Your task to perform on an android device: find photos in the google photos app Image 0: 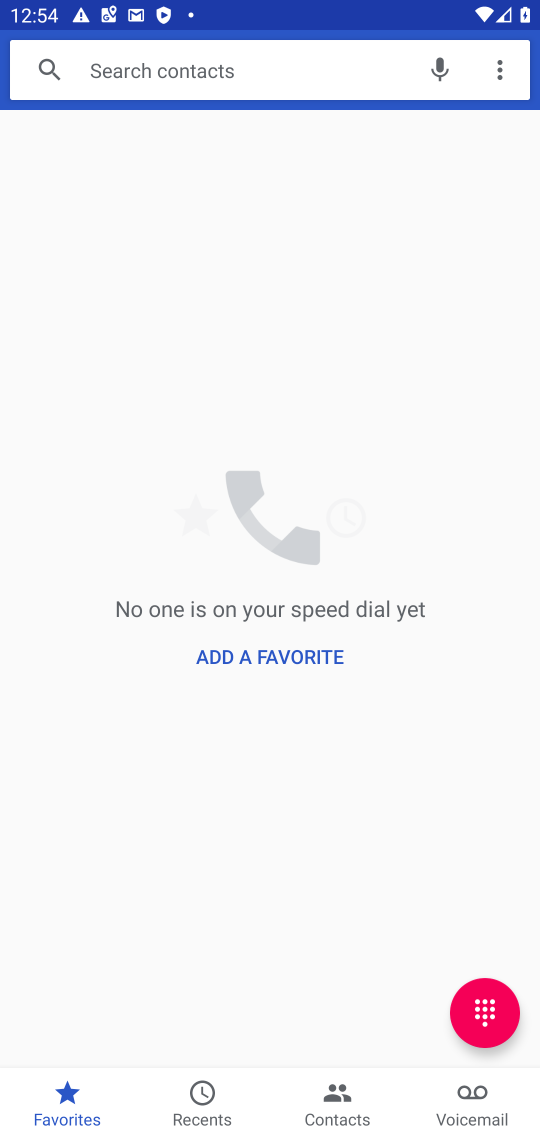
Step 0: press home button
Your task to perform on an android device: find photos in the google photos app Image 1: 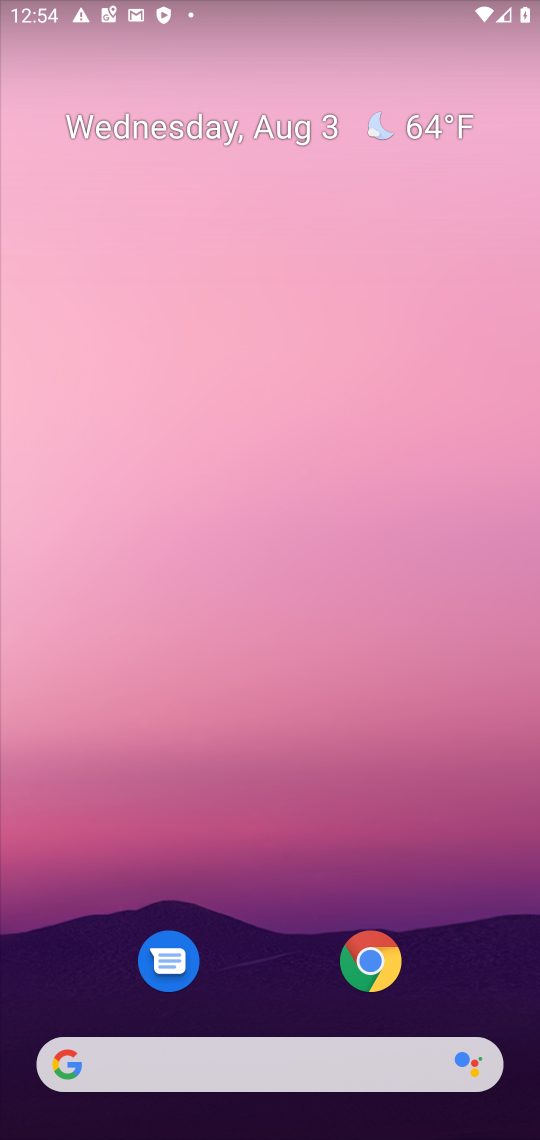
Step 1: drag from (272, 949) to (273, 129)
Your task to perform on an android device: find photos in the google photos app Image 2: 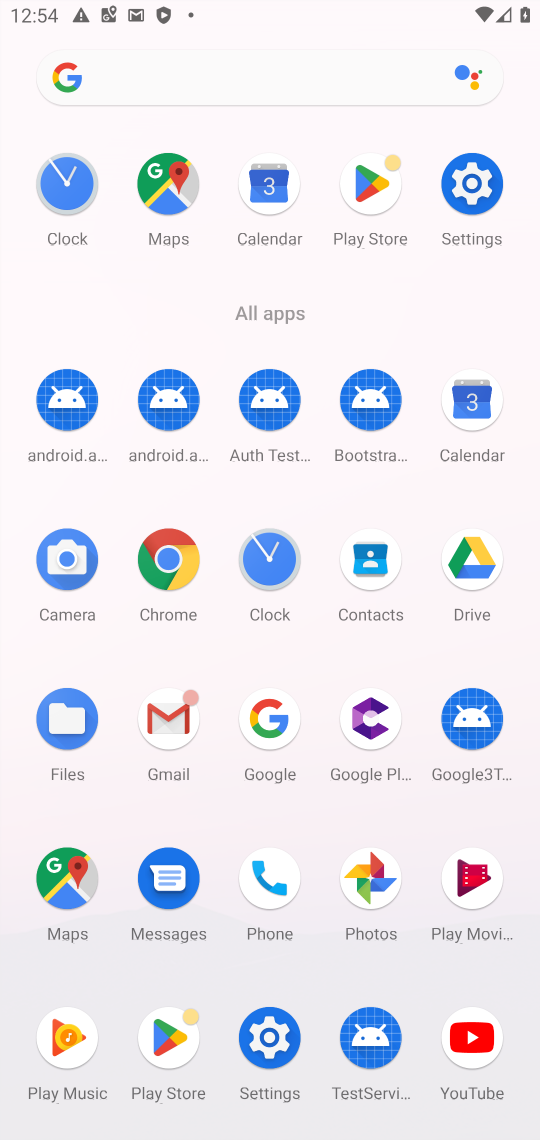
Step 2: click (365, 875)
Your task to perform on an android device: find photos in the google photos app Image 3: 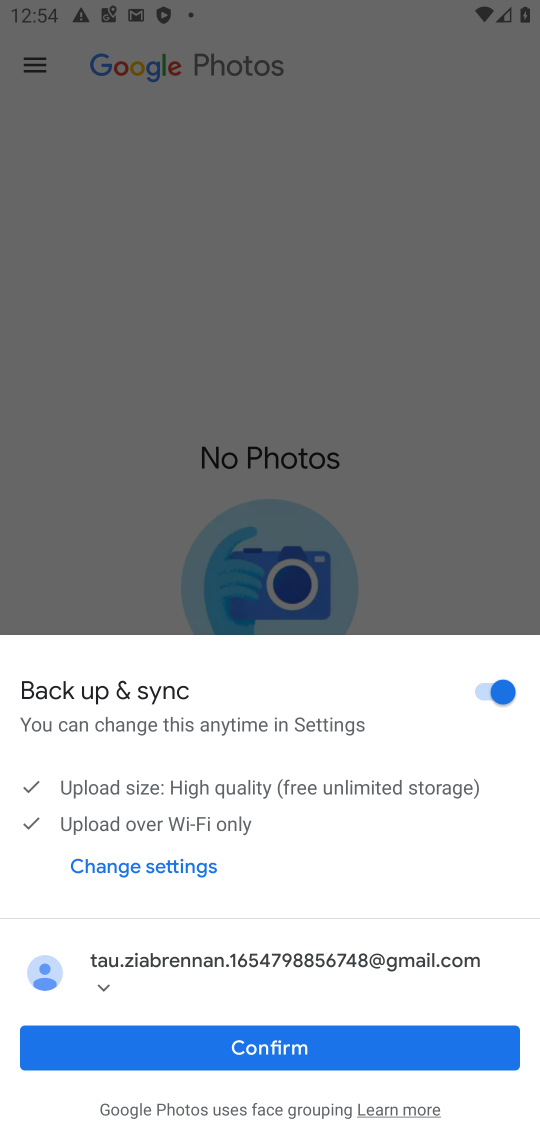
Step 3: click (245, 1051)
Your task to perform on an android device: find photos in the google photos app Image 4: 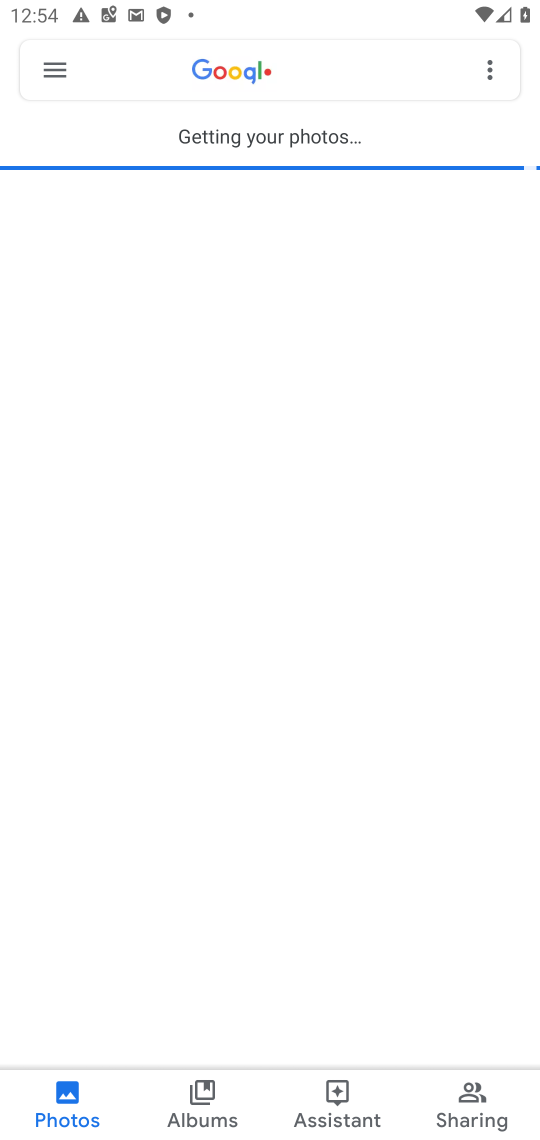
Step 4: click (55, 1116)
Your task to perform on an android device: find photos in the google photos app Image 5: 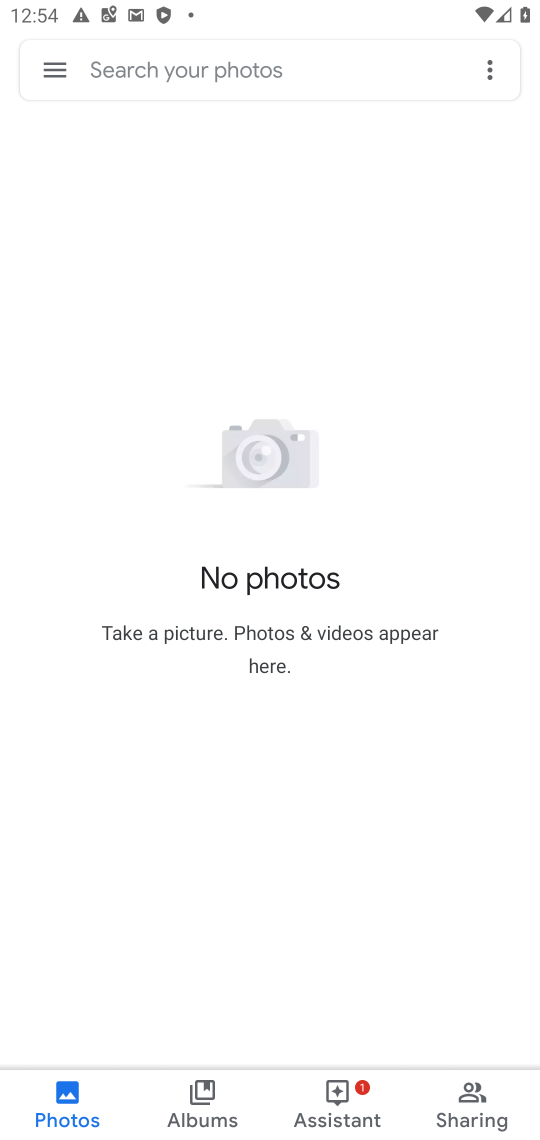
Step 5: task complete